Your task to perform on an android device: delete browsing data in the chrome app Image 0: 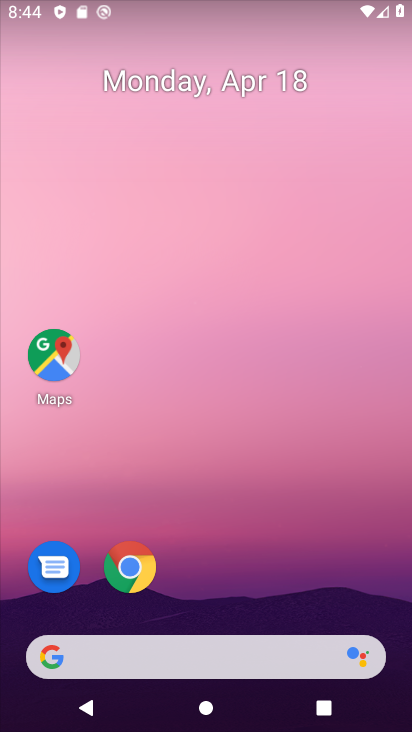
Step 0: click (132, 584)
Your task to perform on an android device: delete browsing data in the chrome app Image 1: 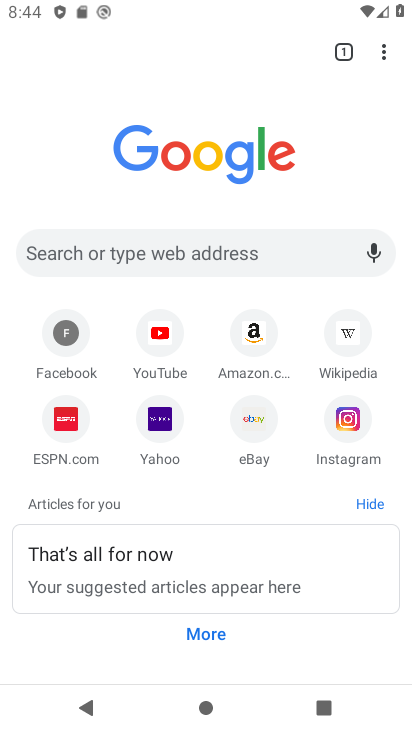
Step 1: click (382, 49)
Your task to perform on an android device: delete browsing data in the chrome app Image 2: 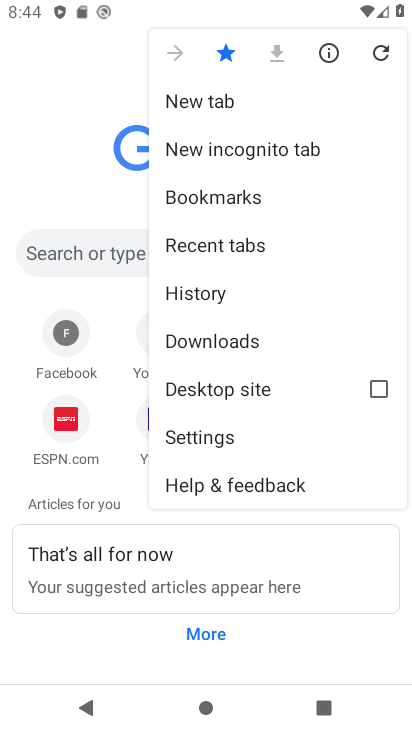
Step 2: click (204, 294)
Your task to perform on an android device: delete browsing data in the chrome app Image 3: 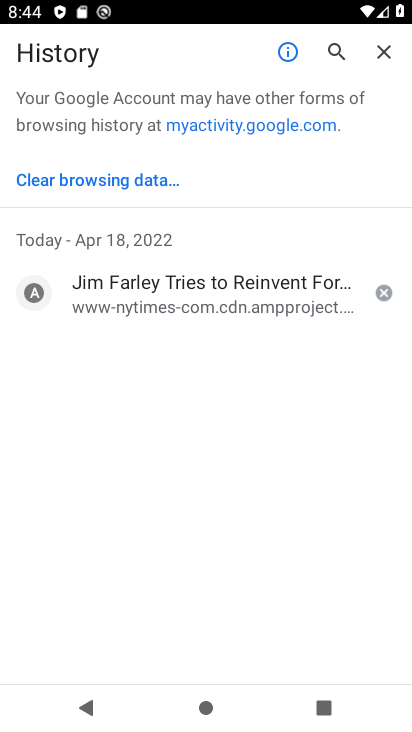
Step 3: click (131, 180)
Your task to perform on an android device: delete browsing data in the chrome app Image 4: 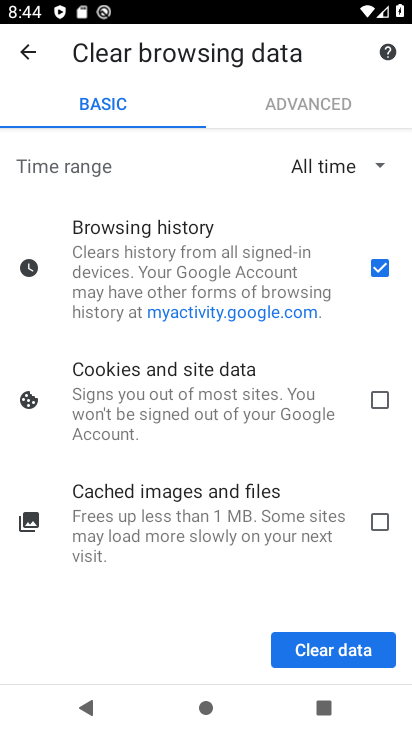
Step 4: click (322, 646)
Your task to perform on an android device: delete browsing data in the chrome app Image 5: 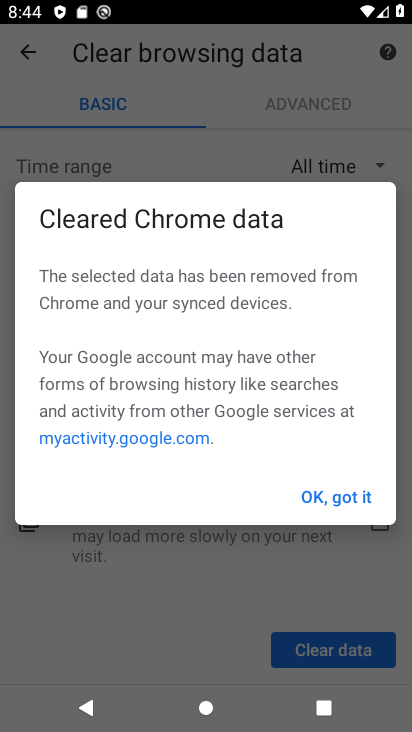
Step 5: click (332, 501)
Your task to perform on an android device: delete browsing data in the chrome app Image 6: 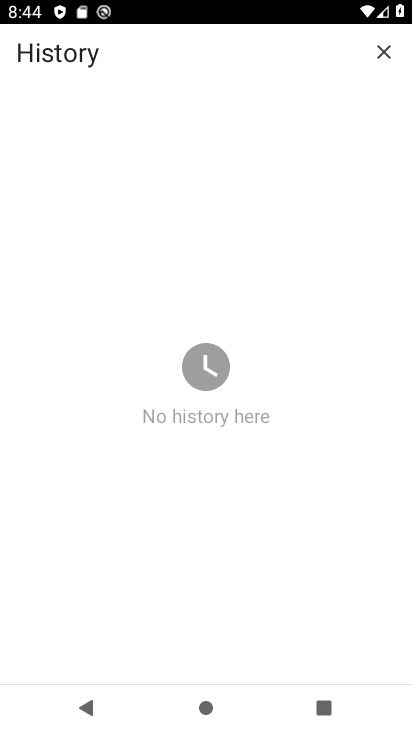
Step 6: task complete